Your task to perform on an android device: Open internet settings Image 0: 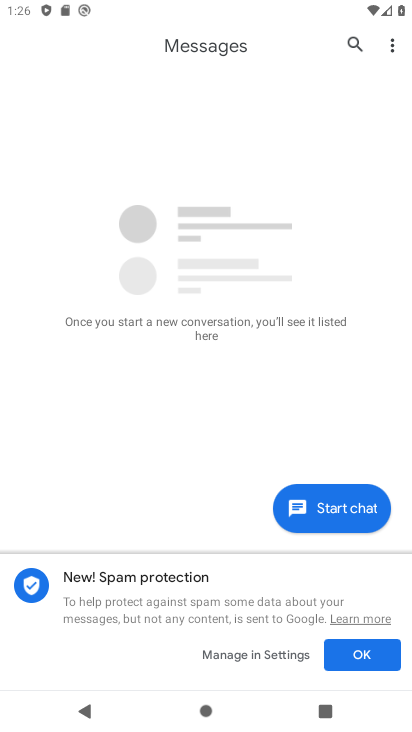
Step 0: press home button
Your task to perform on an android device: Open internet settings Image 1: 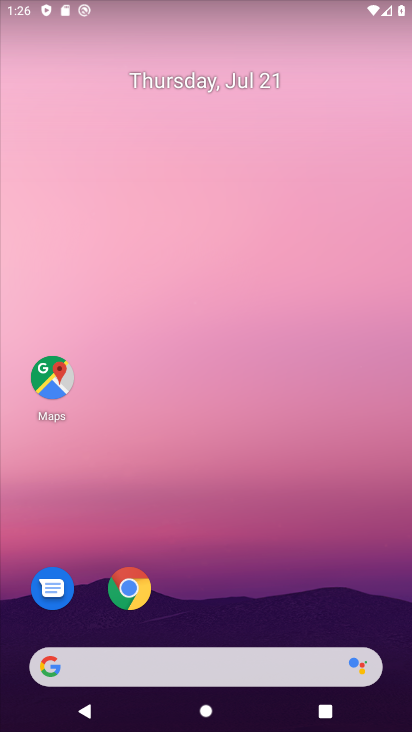
Step 1: drag from (219, 641) to (171, 47)
Your task to perform on an android device: Open internet settings Image 2: 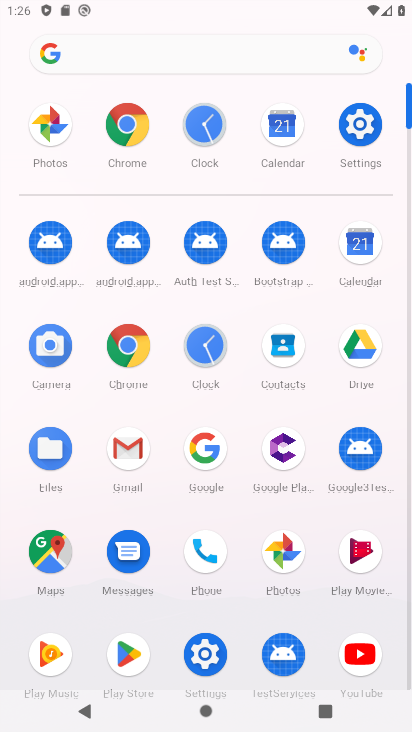
Step 2: click (358, 123)
Your task to perform on an android device: Open internet settings Image 3: 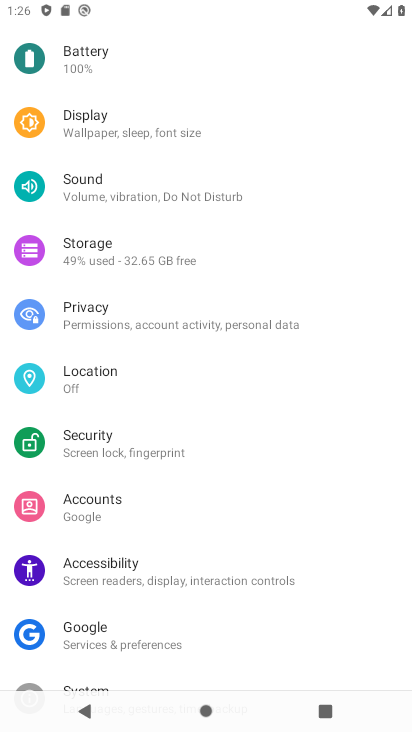
Step 3: drag from (201, 125) to (167, 556)
Your task to perform on an android device: Open internet settings Image 4: 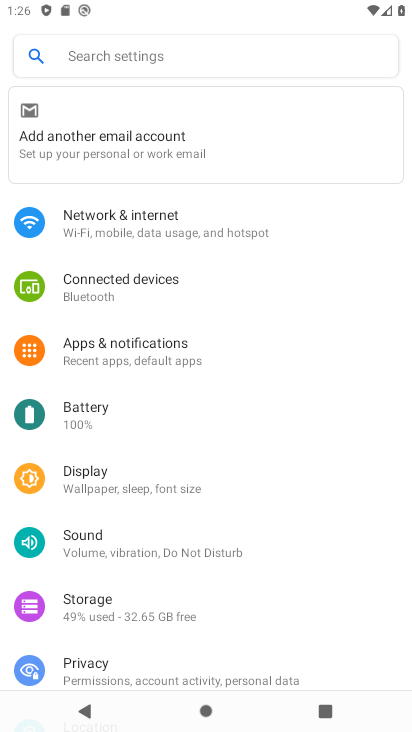
Step 4: click (119, 215)
Your task to perform on an android device: Open internet settings Image 5: 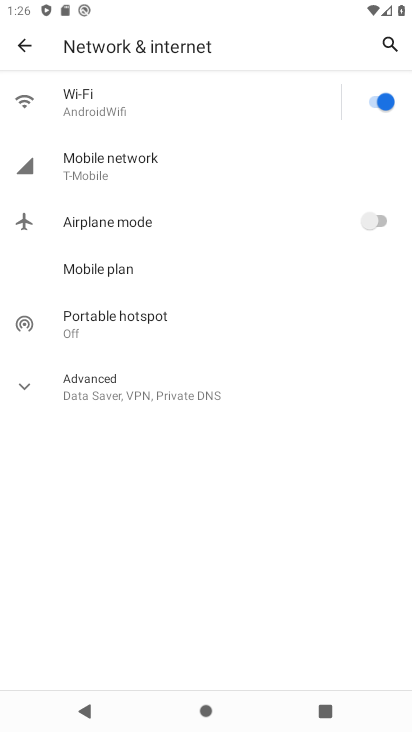
Step 5: click (105, 160)
Your task to perform on an android device: Open internet settings Image 6: 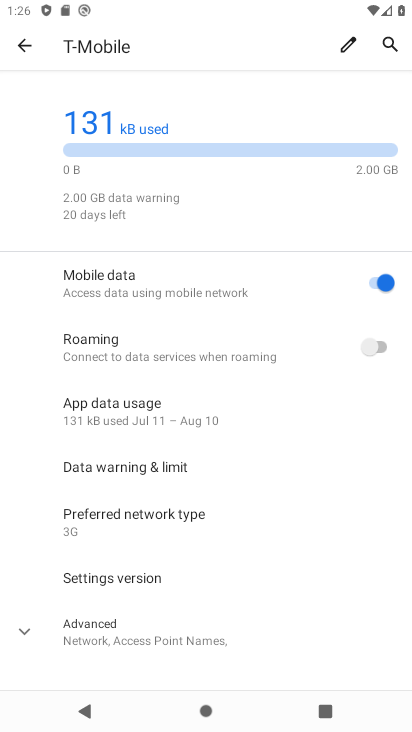
Step 6: task complete